Your task to perform on an android device: What's on the menu at Papa Murphy's? Image 0: 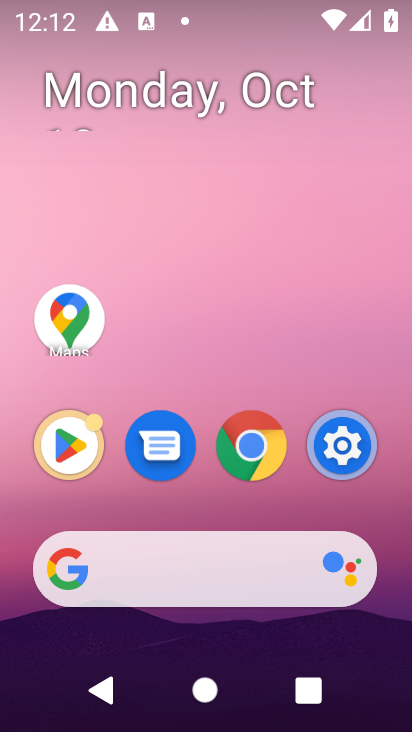
Step 0: click (233, 445)
Your task to perform on an android device: What's on the menu at Papa Murphy's? Image 1: 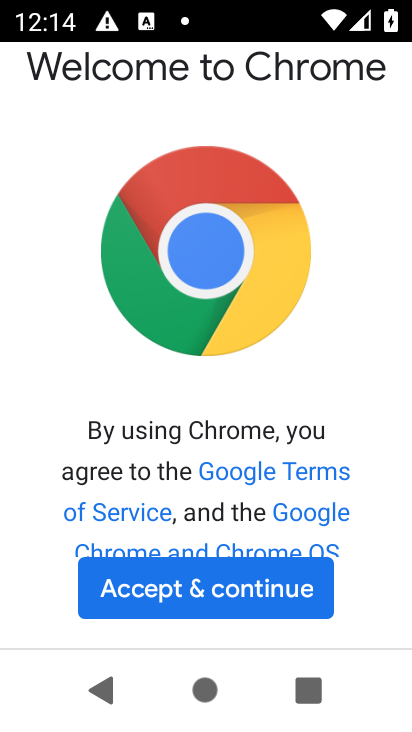
Step 1: click (153, 582)
Your task to perform on an android device: What's on the menu at Papa Murphy's? Image 2: 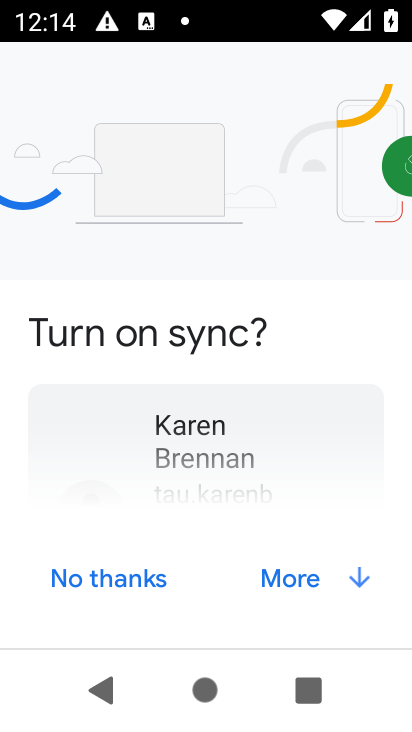
Step 2: click (127, 585)
Your task to perform on an android device: What's on the menu at Papa Murphy's? Image 3: 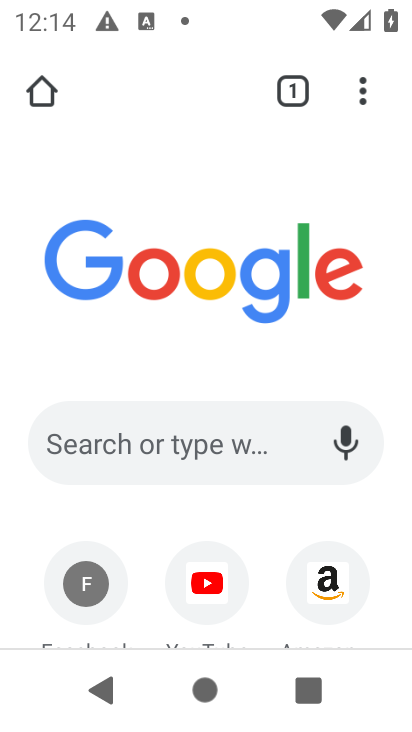
Step 3: click (158, 439)
Your task to perform on an android device: What's on the menu at Papa Murphy's? Image 4: 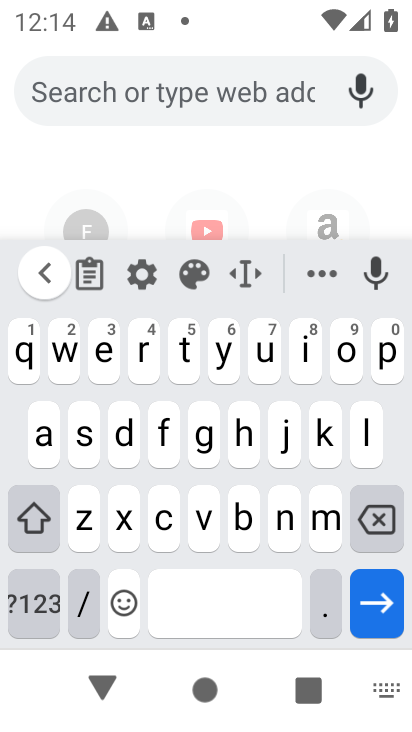
Step 4: type "whats on the menu at papa murphys?"
Your task to perform on an android device: What's on the menu at Papa Murphy's? Image 5: 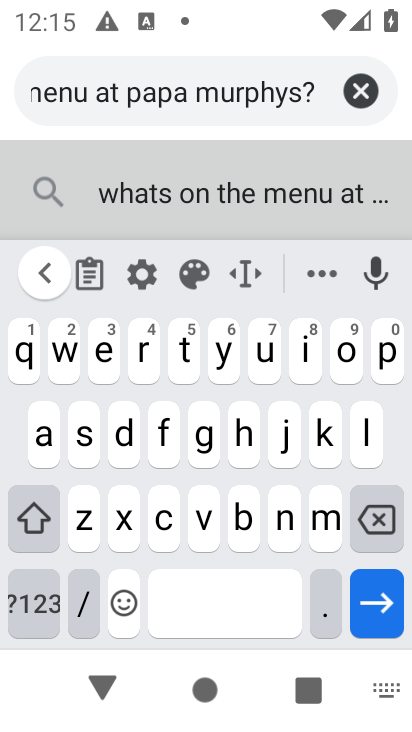
Step 5: click (397, 100)
Your task to perform on an android device: What's on the menu at Papa Murphy's? Image 6: 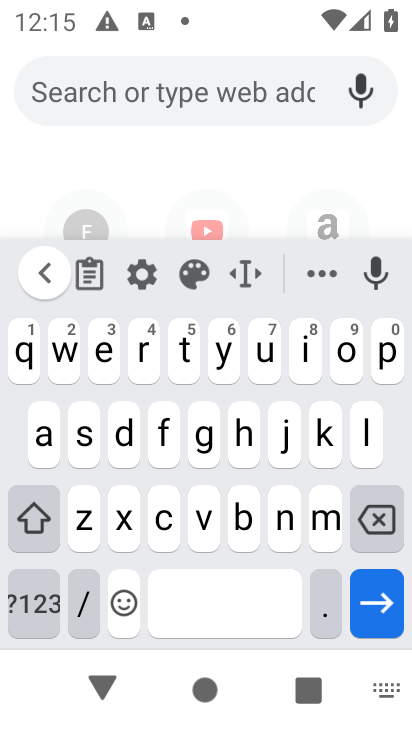
Step 6: task complete